Your task to perform on an android device: What's the latest news in tech? Image 0: 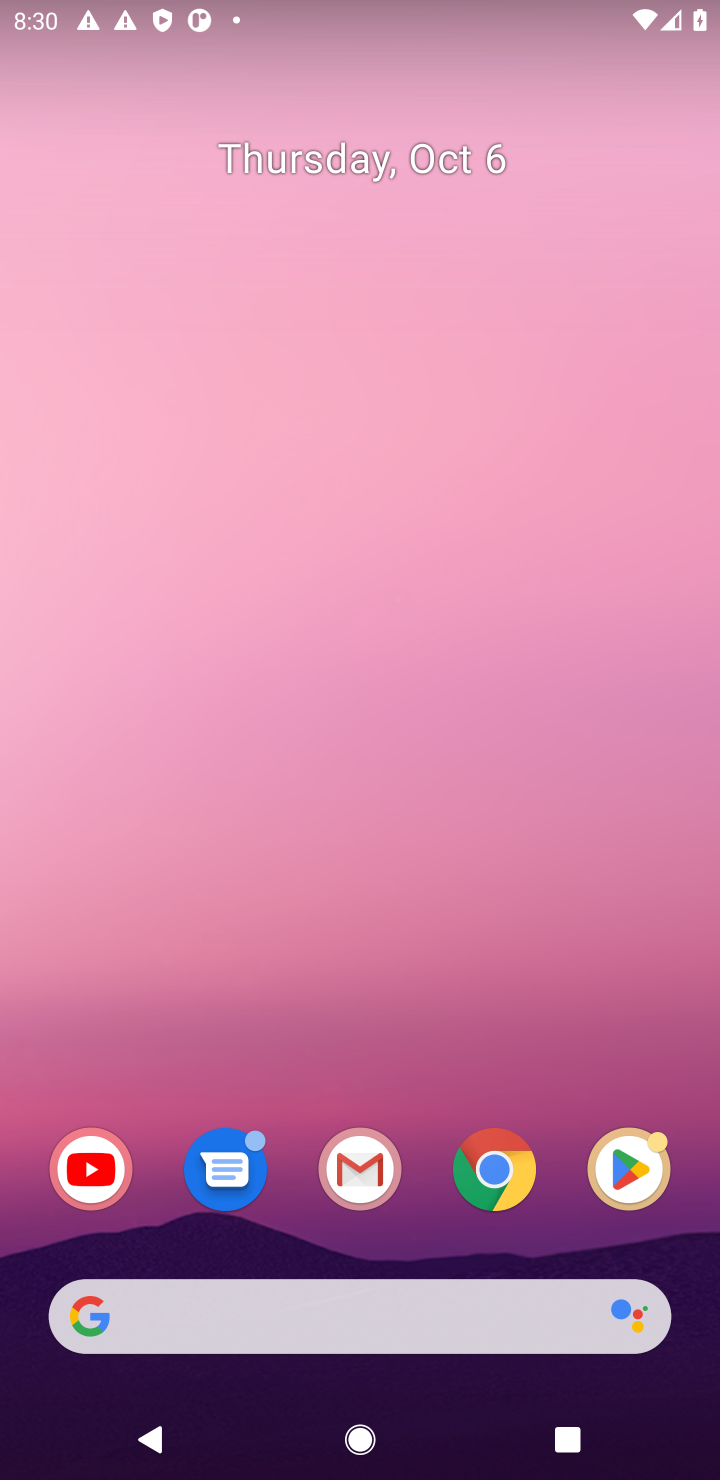
Step 0: drag from (416, 991) to (516, 229)
Your task to perform on an android device: What's the latest news in tech? Image 1: 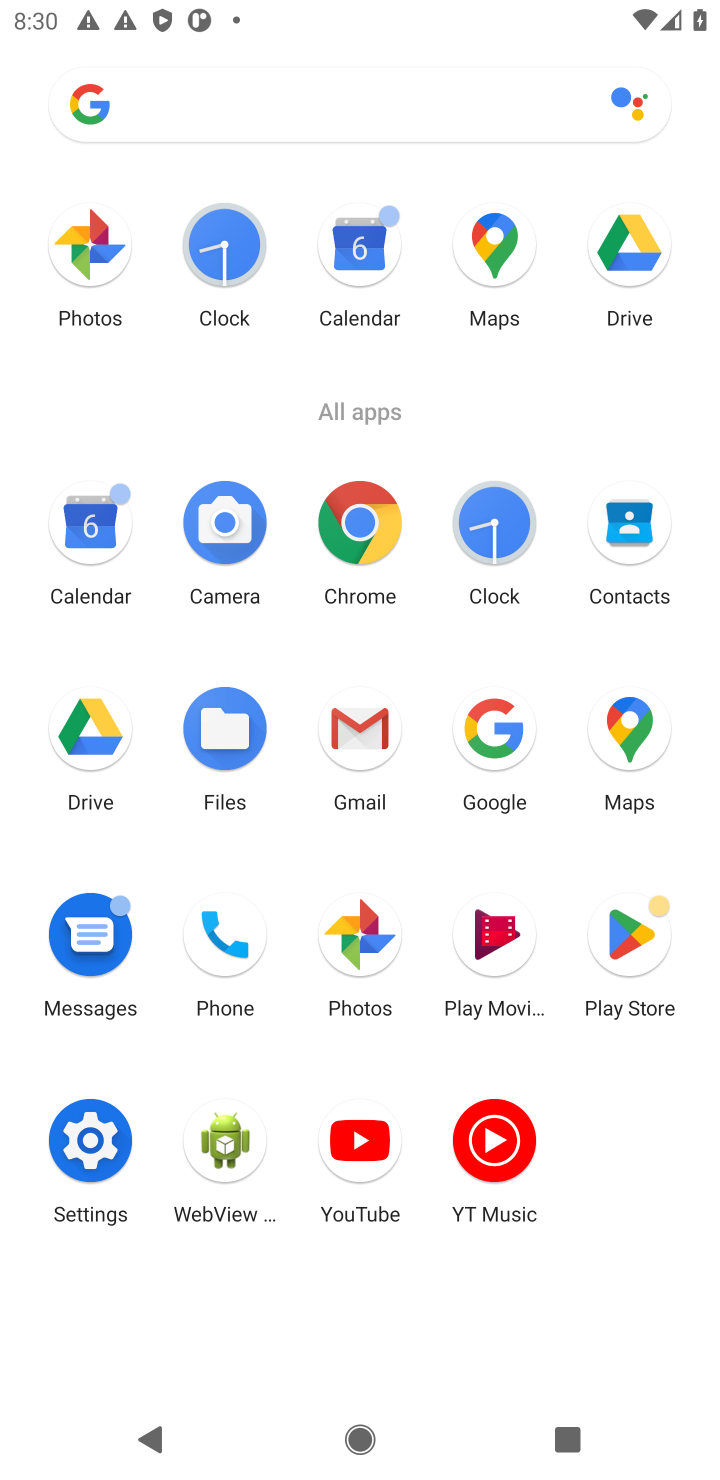
Step 1: click (362, 549)
Your task to perform on an android device: What's the latest news in tech? Image 2: 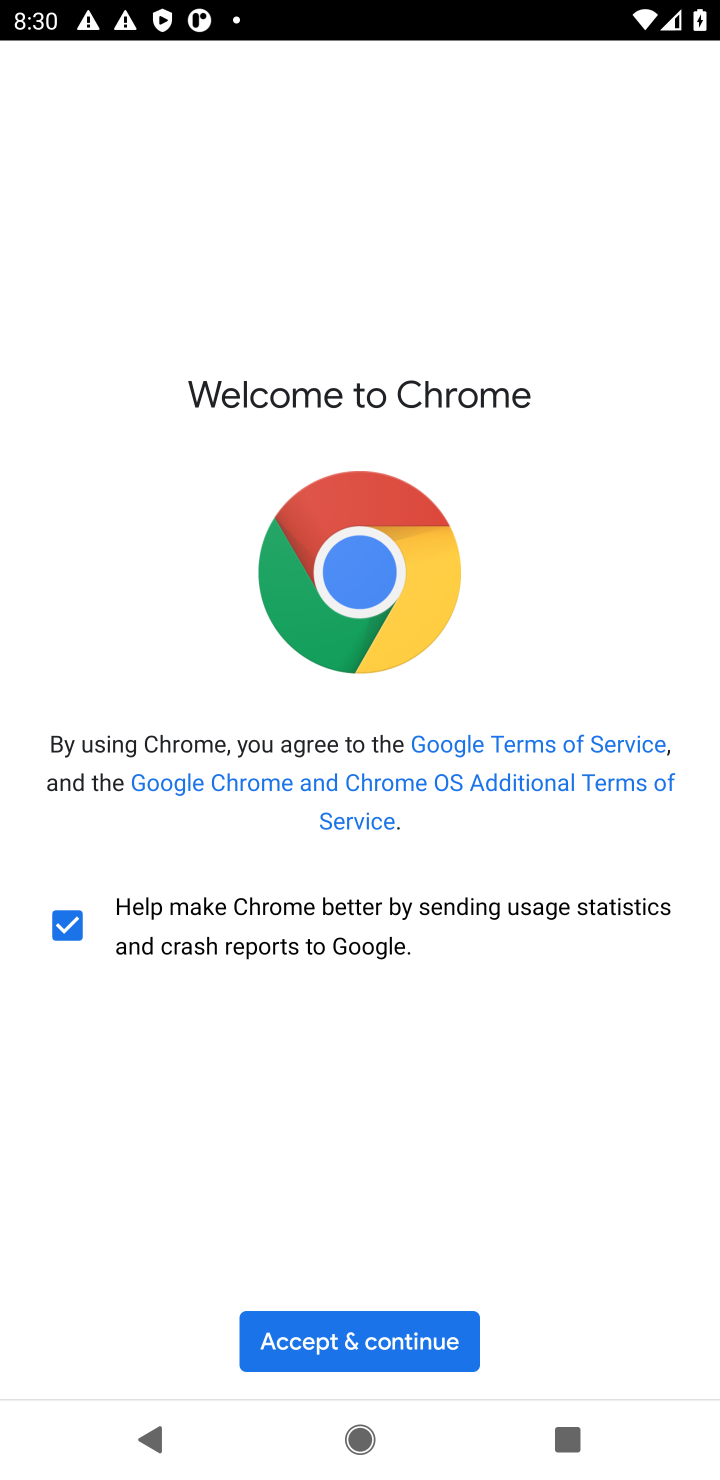
Step 2: click (353, 1330)
Your task to perform on an android device: What's the latest news in tech? Image 3: 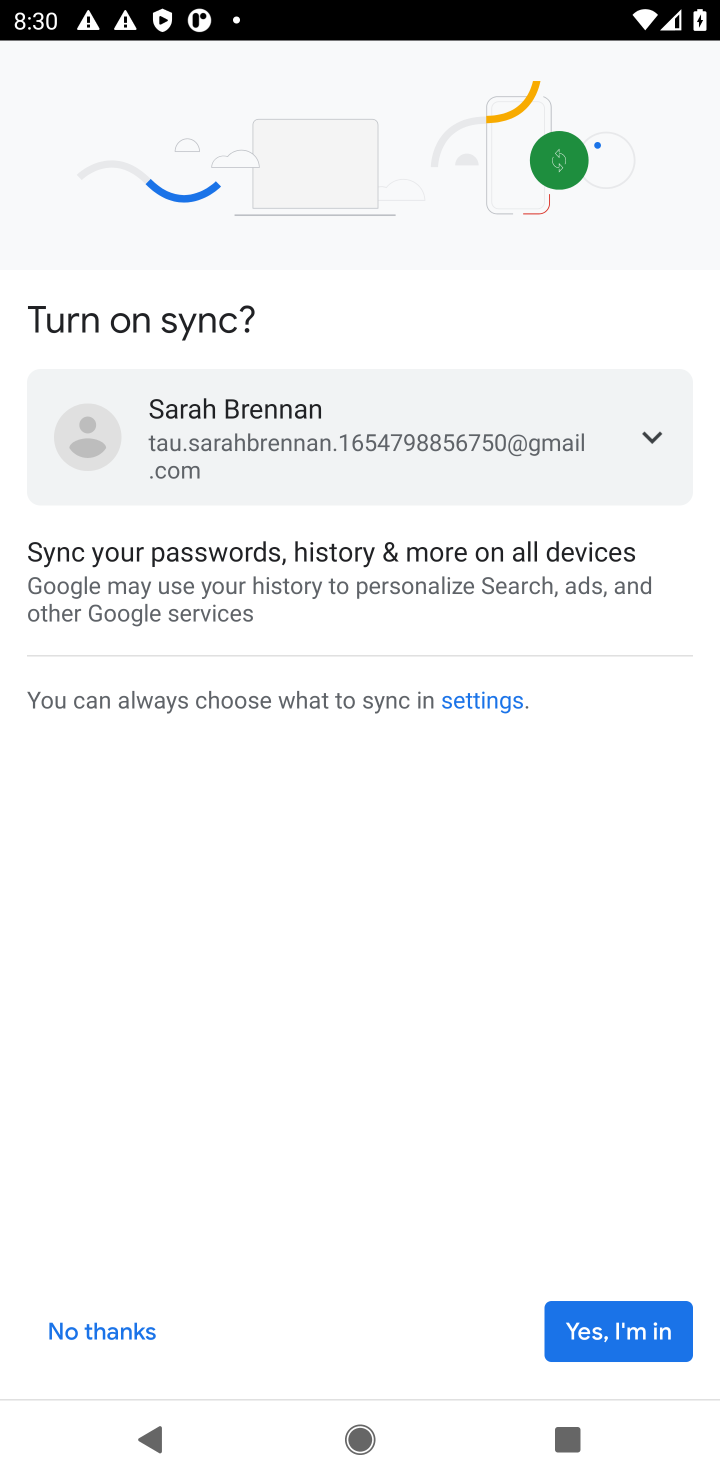
Step 3: click (589, 1332)
Your task to perform on an android device: What's the latest news in tech? Image 4: 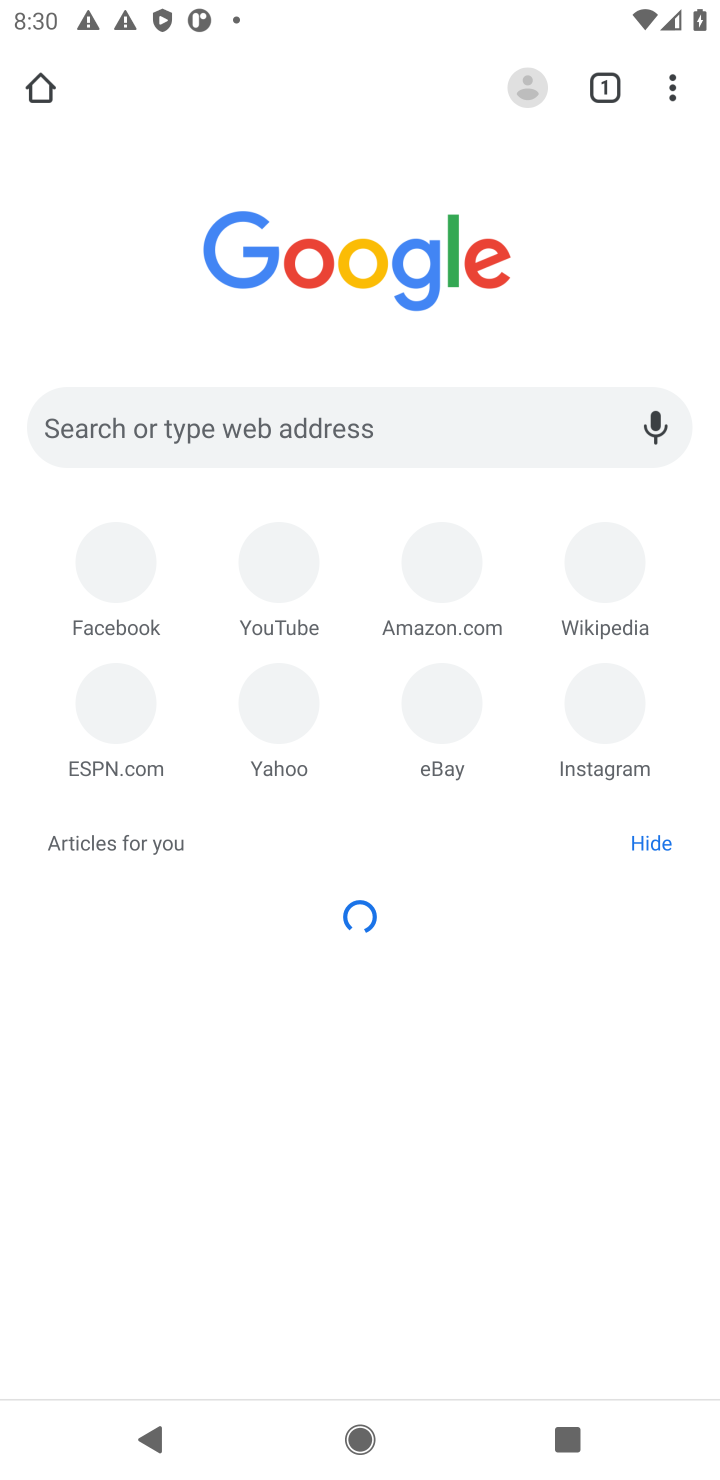
Step 4: click (239, 439)
Your task to perform on an android device: What's the latest news in tech? Image 5: 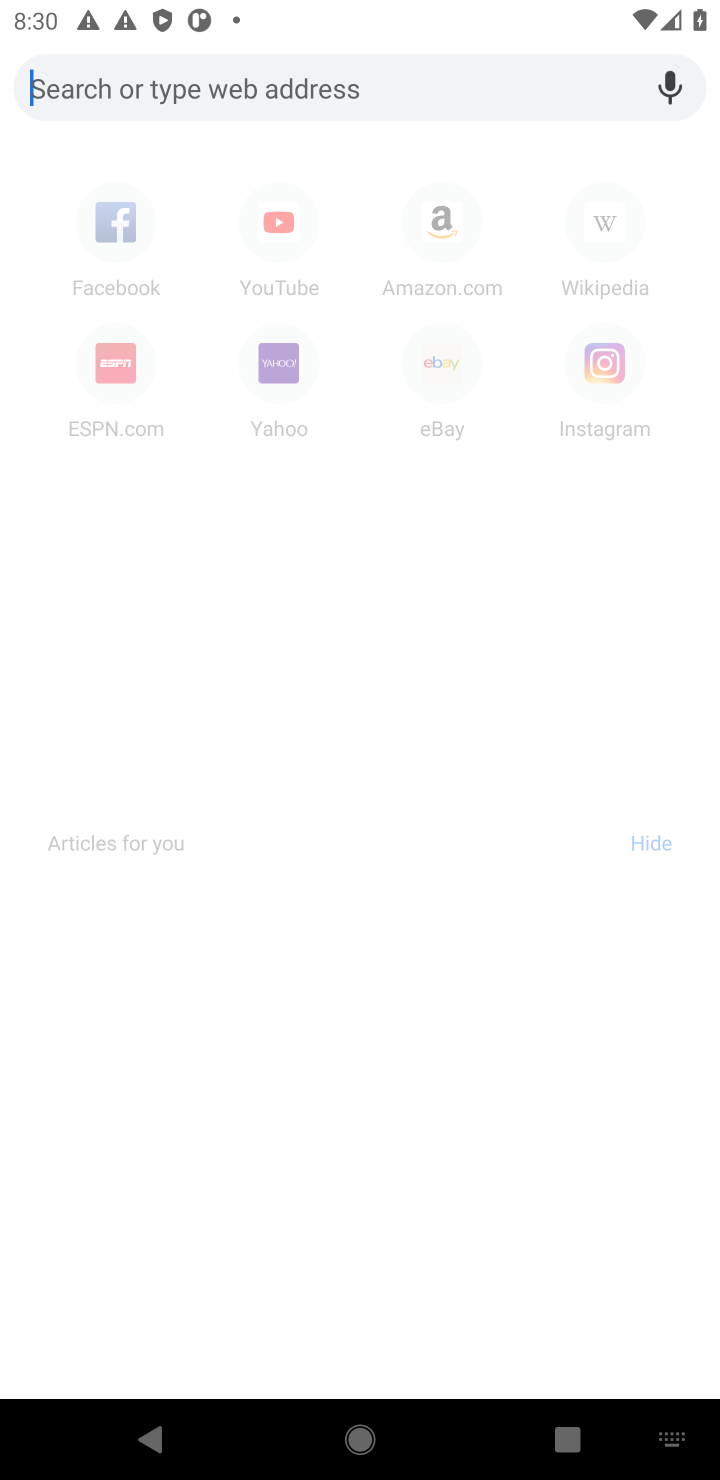
Step 5: click (426, 91)
Your task to perform on an android device: What's the latest news in tech? Image 6: 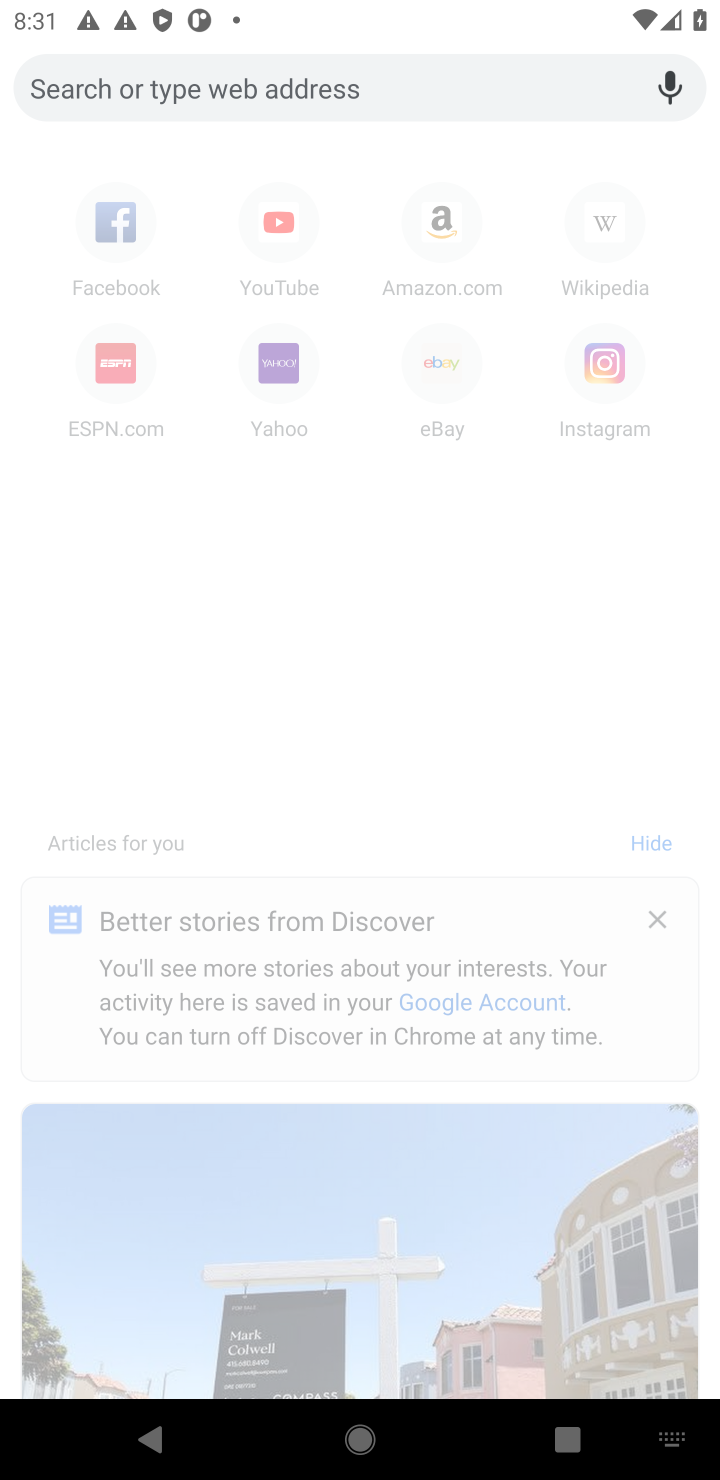
Step 6: type "latest news in tech?"
Your task to perform on an android device: What's the latest news in tech? Image 7: 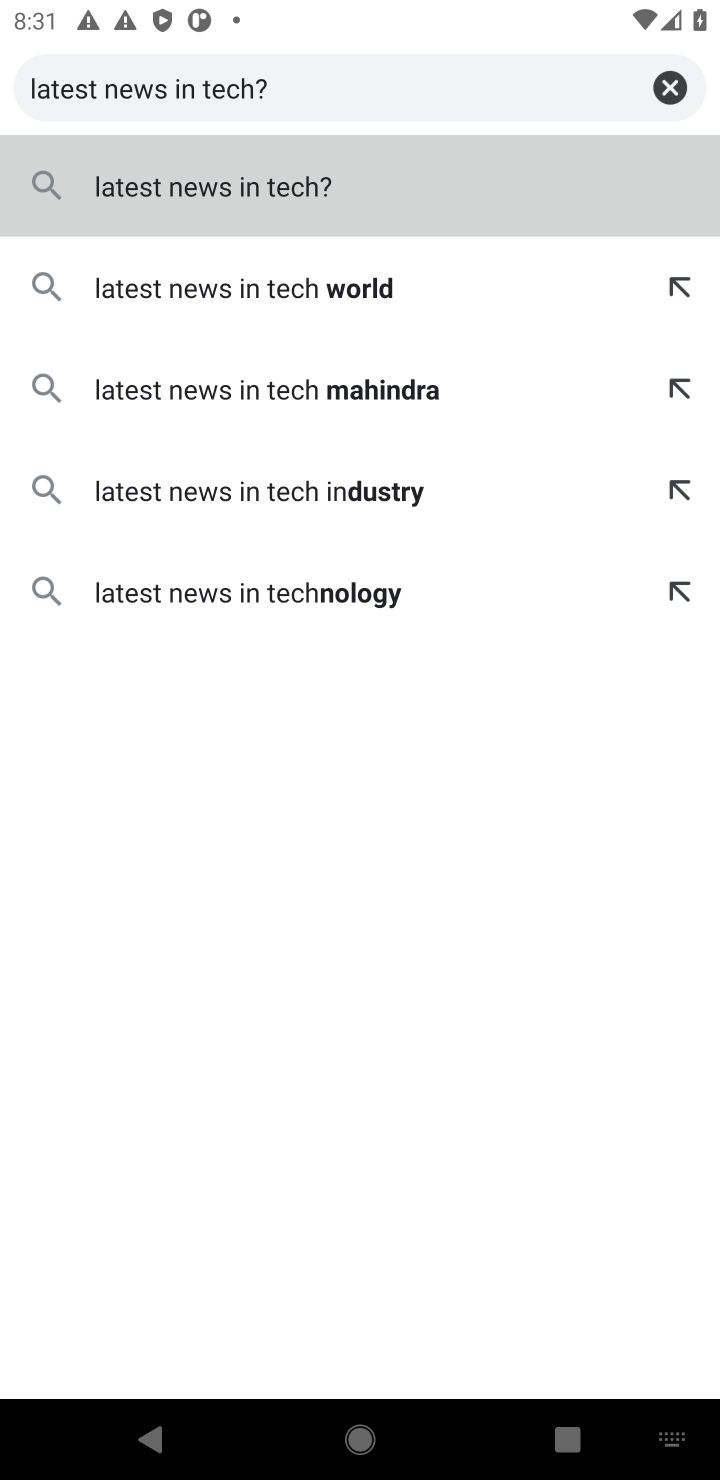
Step 7: click (263, 189)
Your task to perform on an android device: What's the latest news in tech? Image 8: 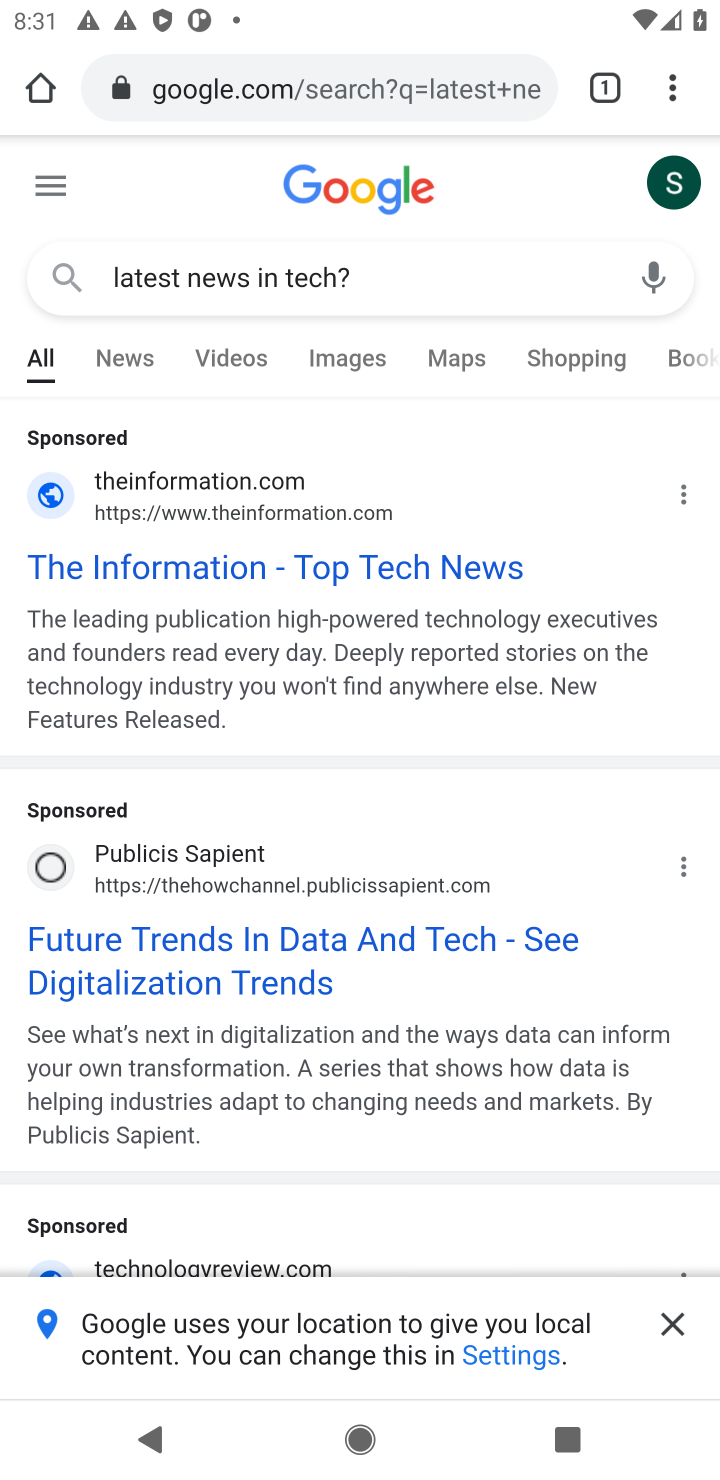
Step 8: drag from (344, 1154) to (449, 469)
Your task to perform on an android device: What's the latest news in tech? Image 9: 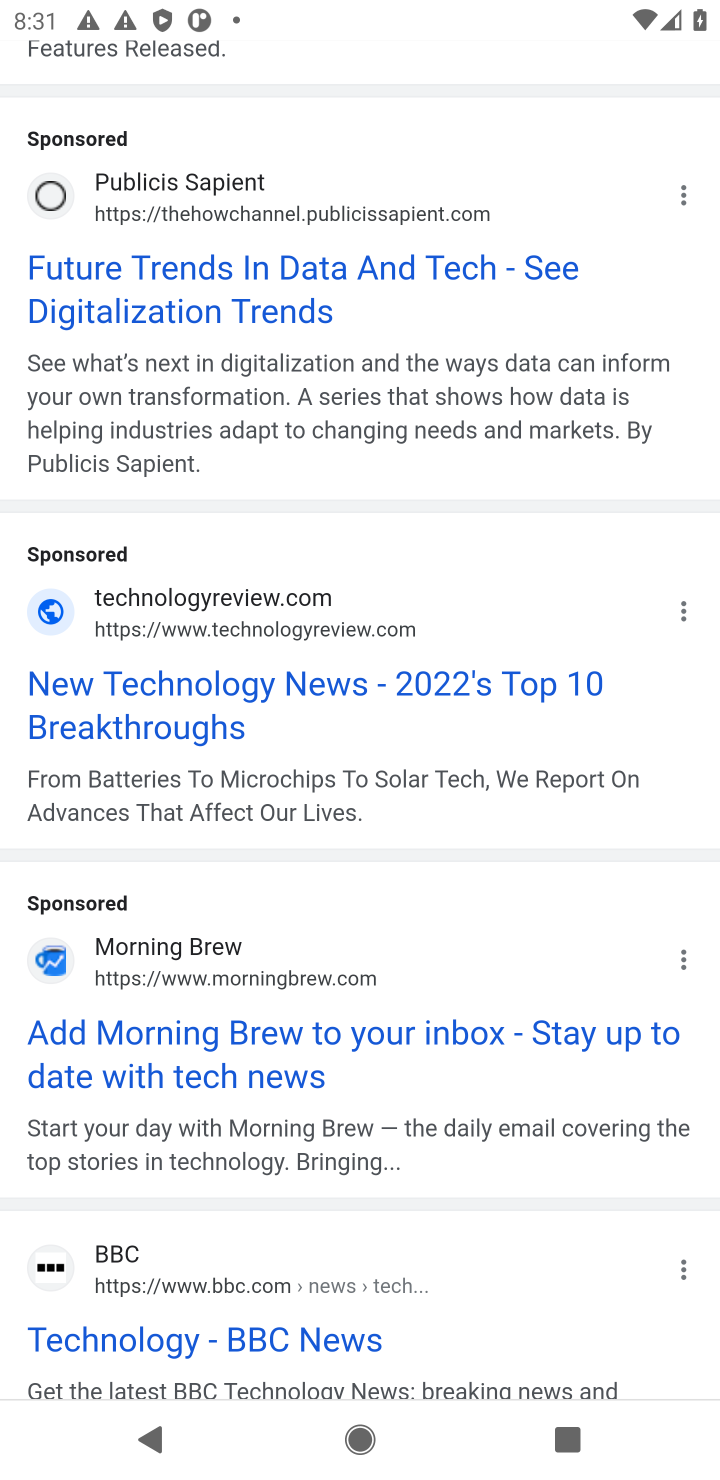
Step 9: click (226, 1074)
Your task to perform on an android device: What's the latest news in tech? Image 10: 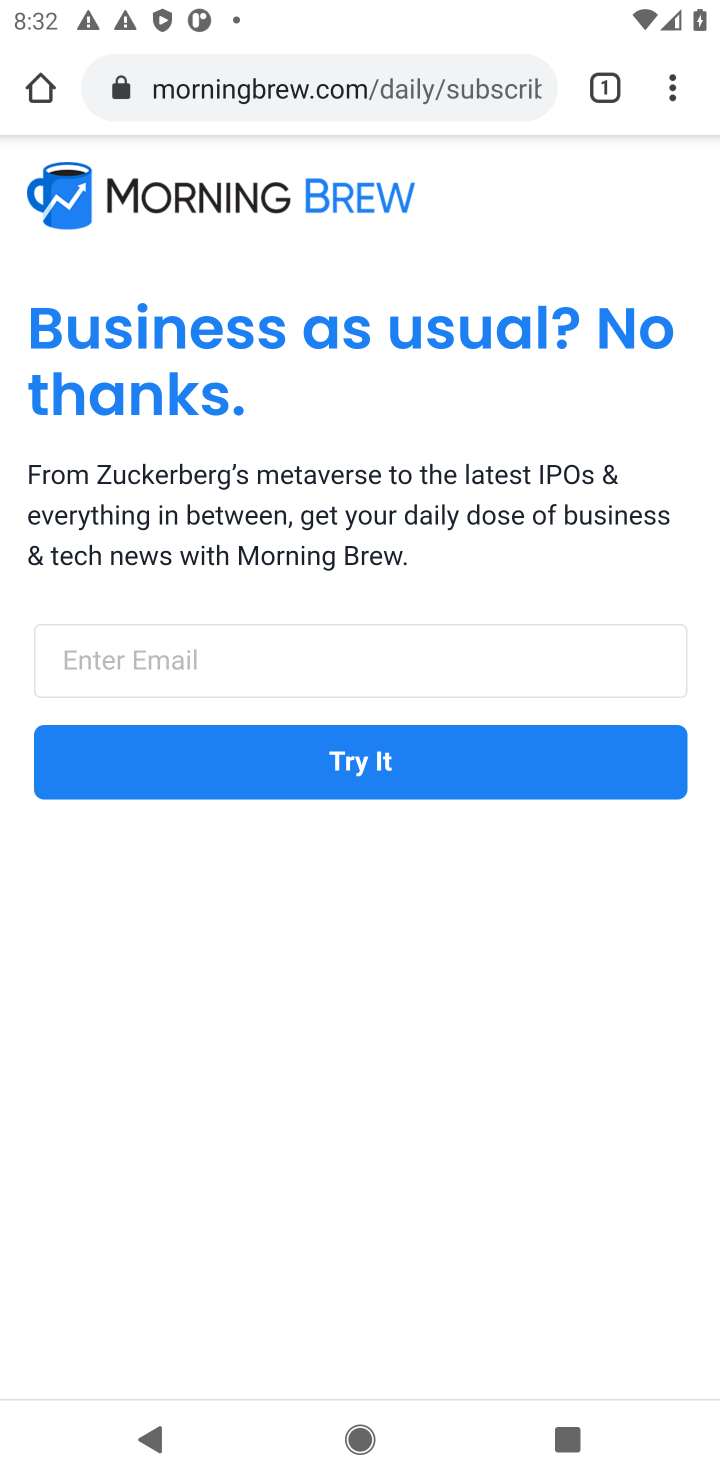
Step 10: task complete